Your task to perform on an android device: check google app version Image 0: 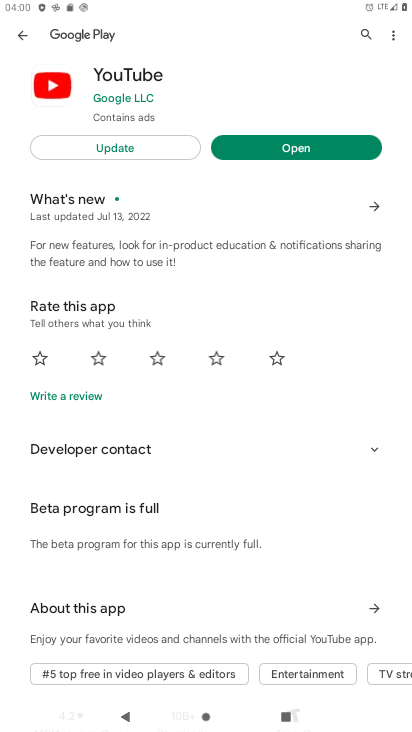
Step 0: press home button
Your task to perform on an android device: check google app version Image 1: 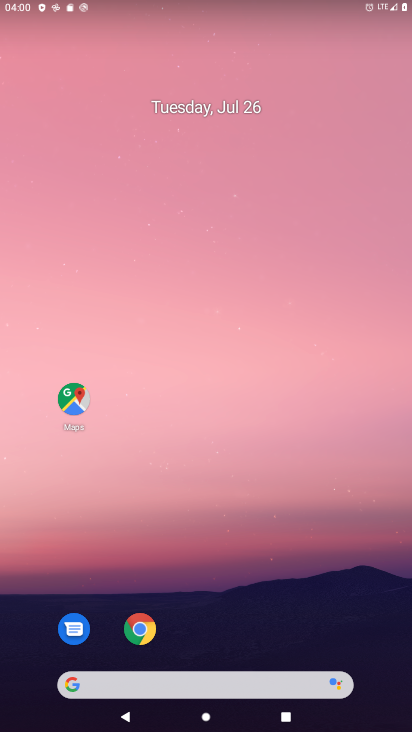
Step 1: drag from (273, 609) to (303, 3)
Your task to perform on an android device: check google app version Image 2: 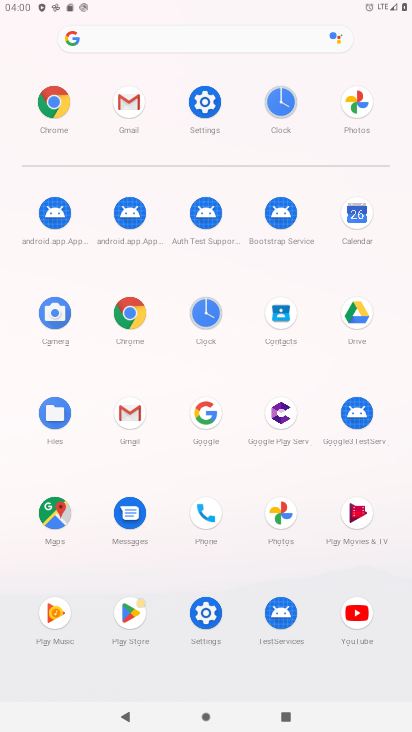
Step 2: click (203, 415)
Your task to perform on an android device: check google app version Image 3: 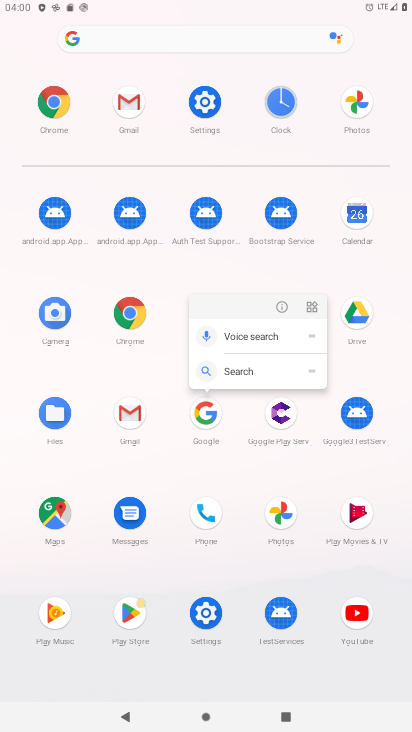
Step 3: click (279, 302)
Your task to perform on an android device: check google app version Image 4: 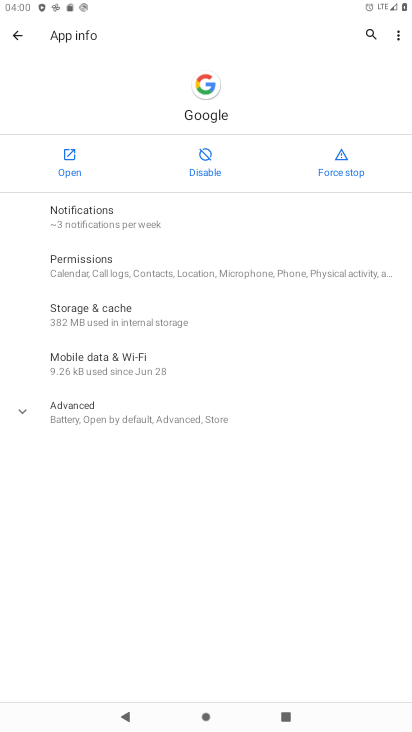
Step 4: click (100, 418)
Your task to perform on an android device: check google app version Image 5: 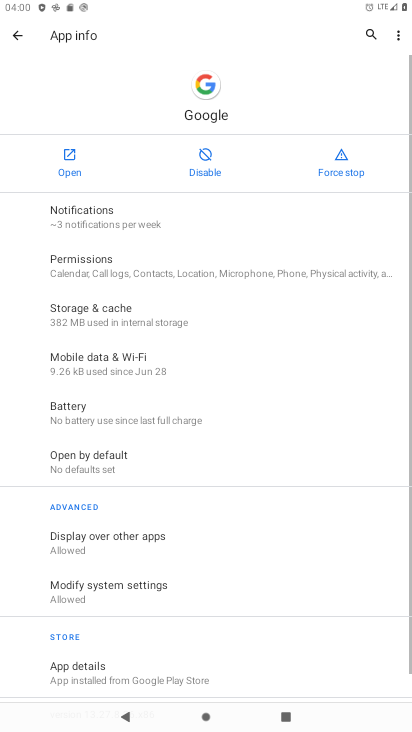
Step 5: task complete